Your task to perform on an android device: Open Google Chrome Image 0: 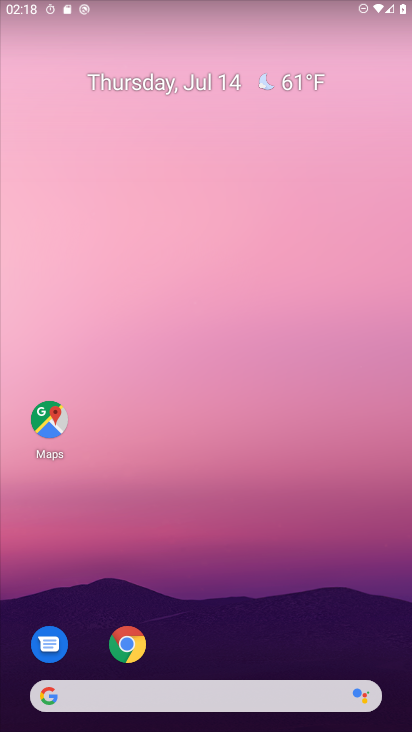
Step 0: click (132, 641)
Your task to perform on an android device: Open Google Chrome Image 1: 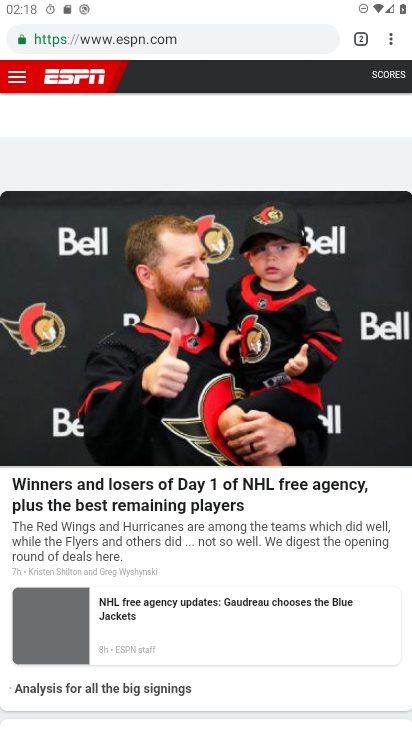
Step 1: task complete